Your task to perform on an android device: Open calendar and show me the second week of next month Image 0: 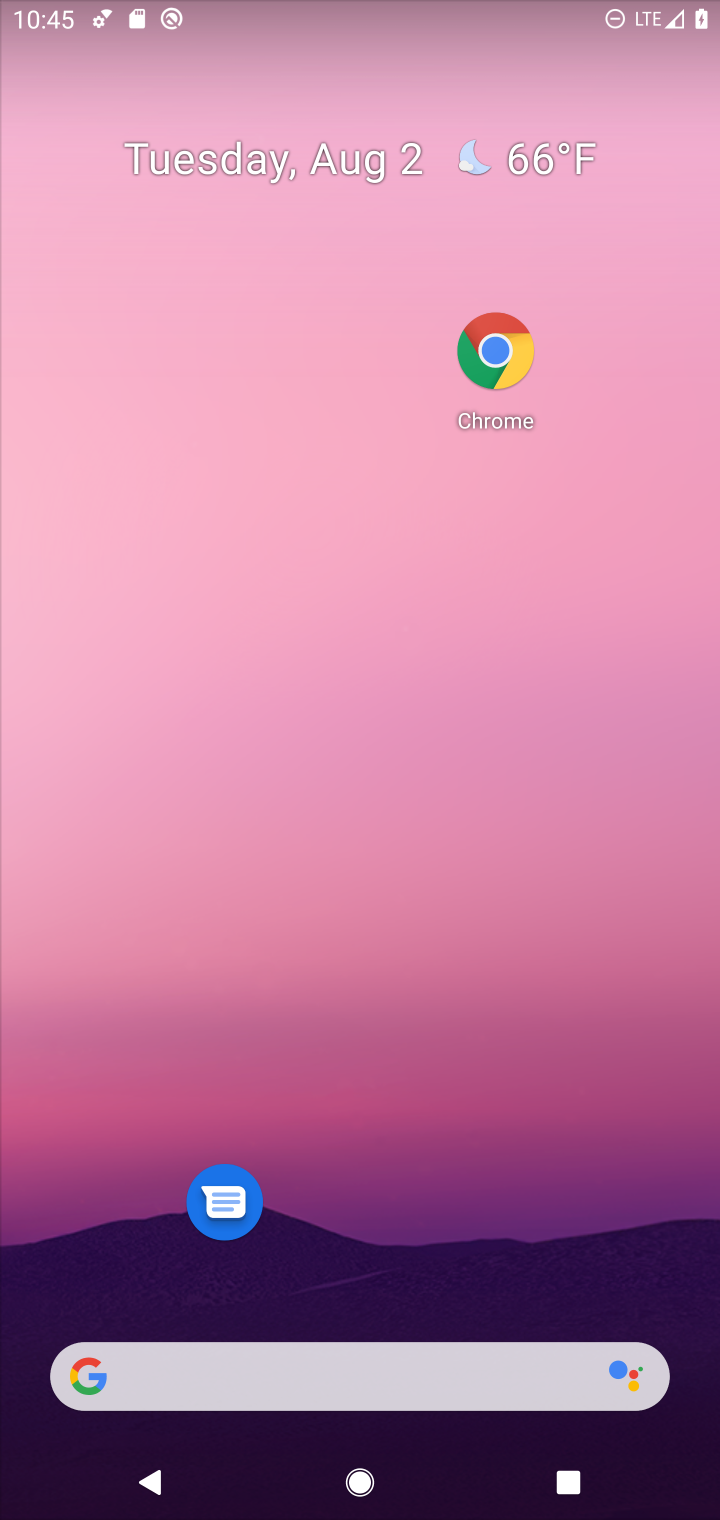
Step 0: drag from (408, 1329) to (403, 39)
Your task to perform on an android device: Open calendar and show me the second week of next month Image 1: 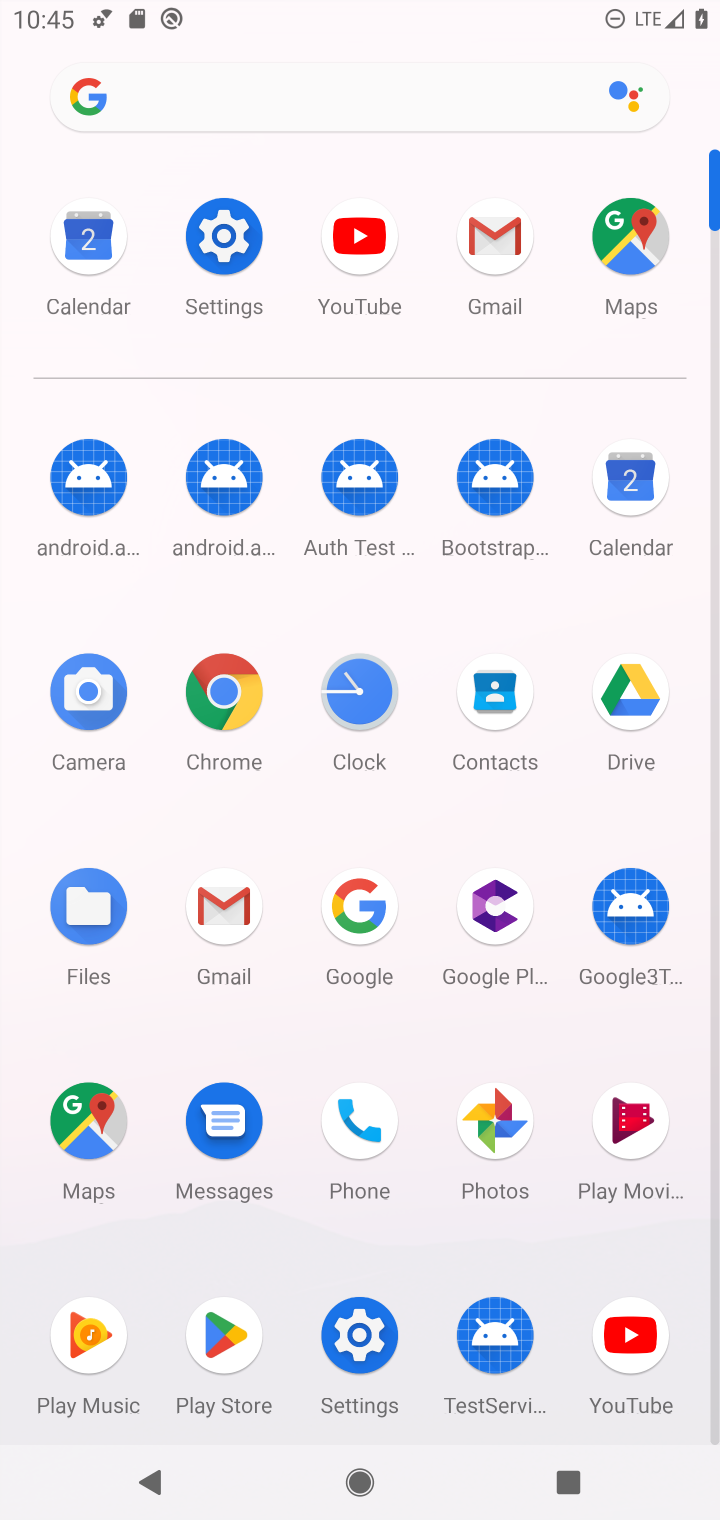
Step 1: click (632, 506)
Your task to perform on an android device: Open calendar and show me the second week of next month Image 2: 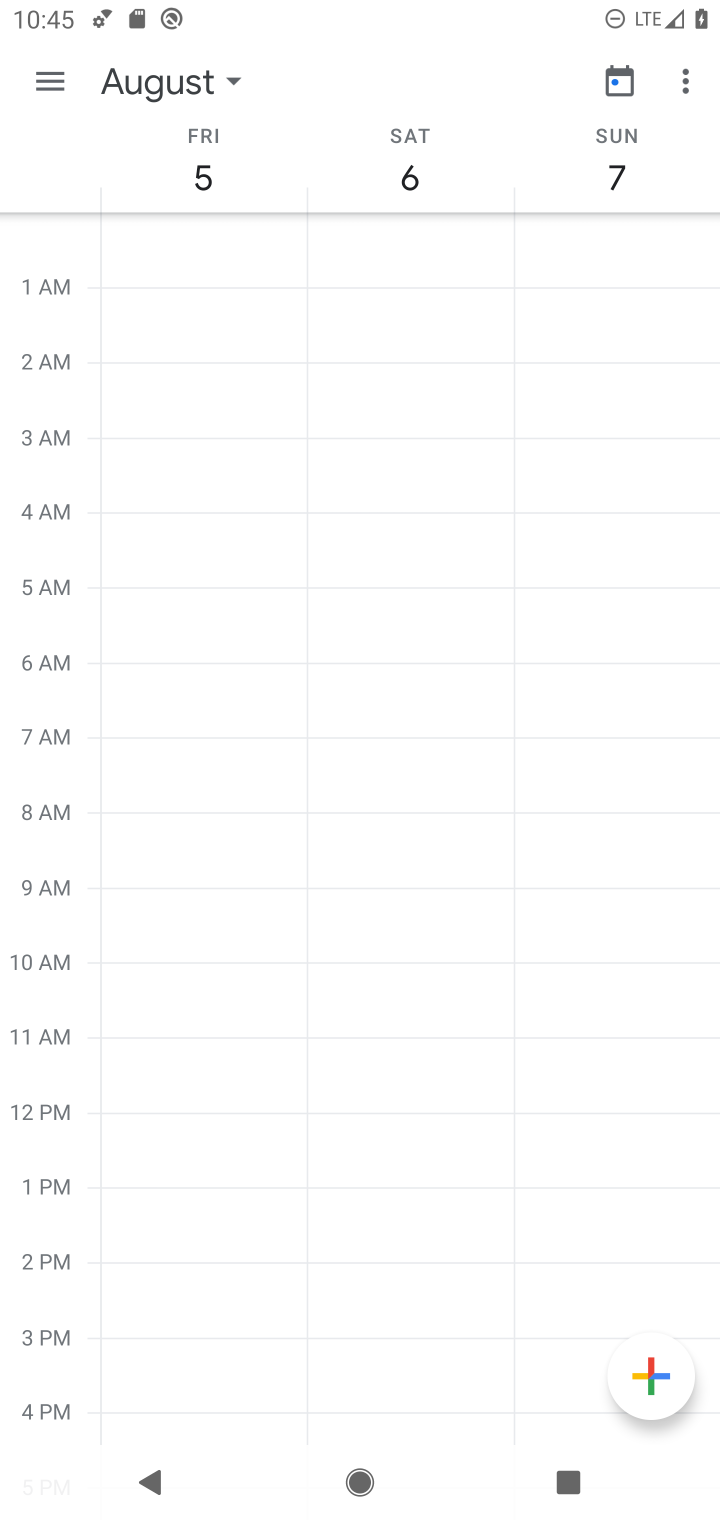
Step 2: click (233, 91)
Your task to perform on an android device: Open calendar and show me the second week of next month Image 3: 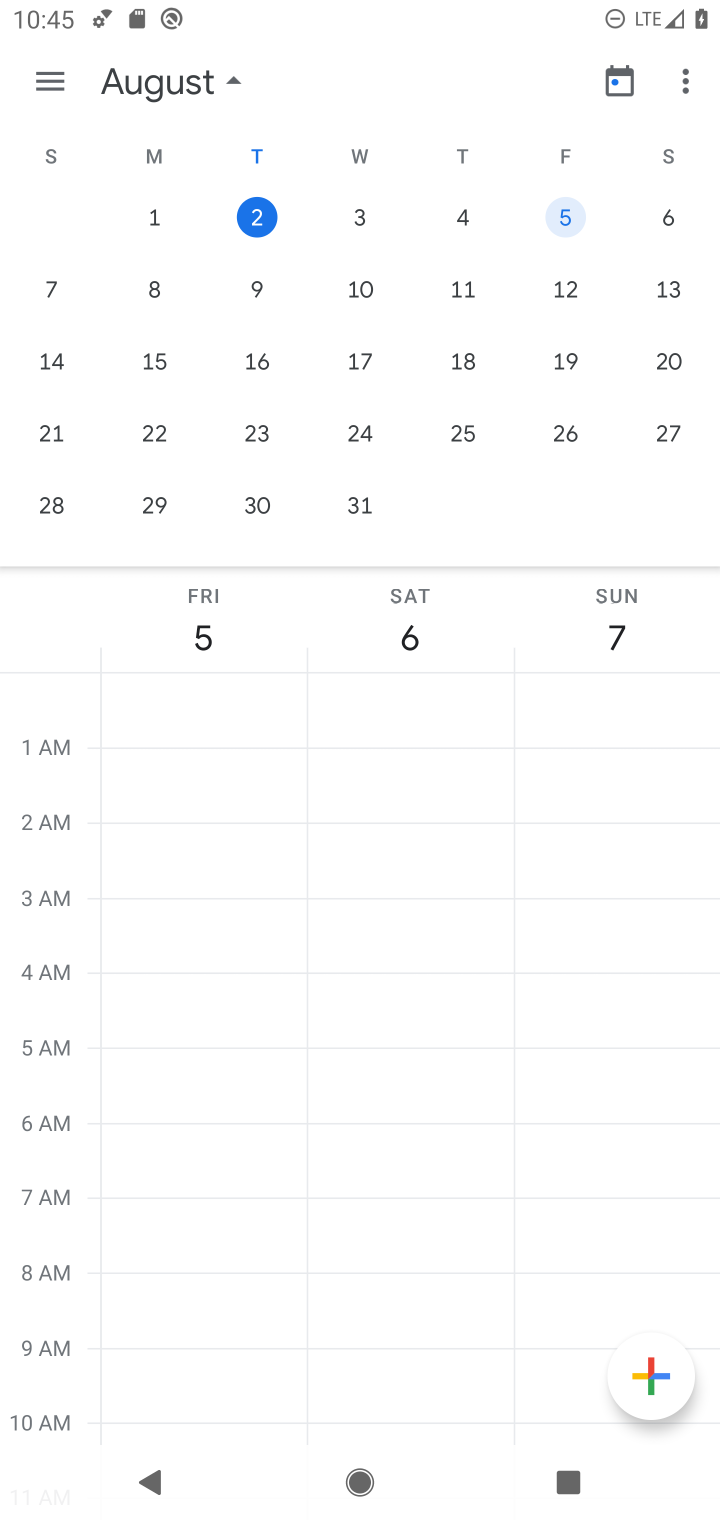
Step 3: drag from (606, 406) to (0, 106)
Your task to perform on an android device: Open calendar and show me the second week of next month Image 4: 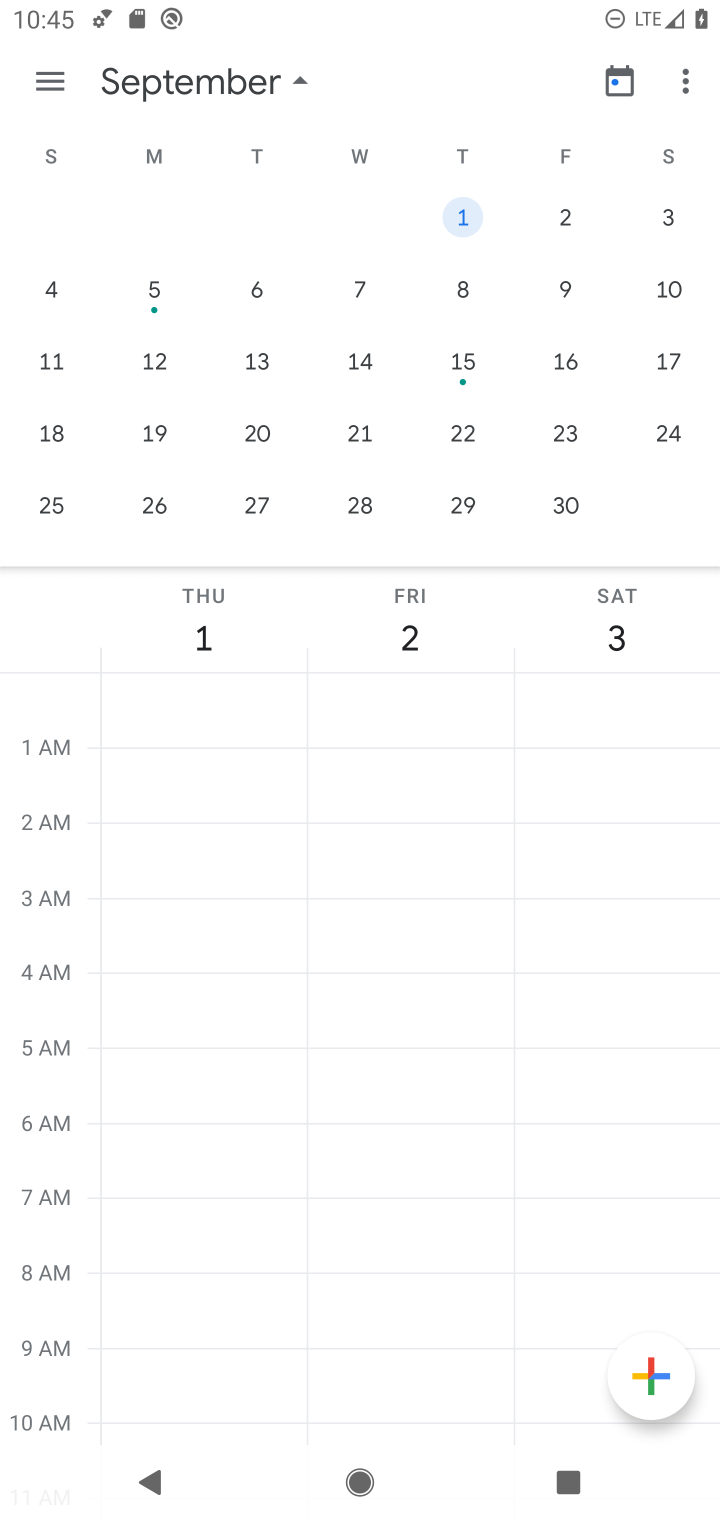
Step 4: click (50, 84)
Your task to perform on an android device: Open calendar and show me the second week of next month Image 5: 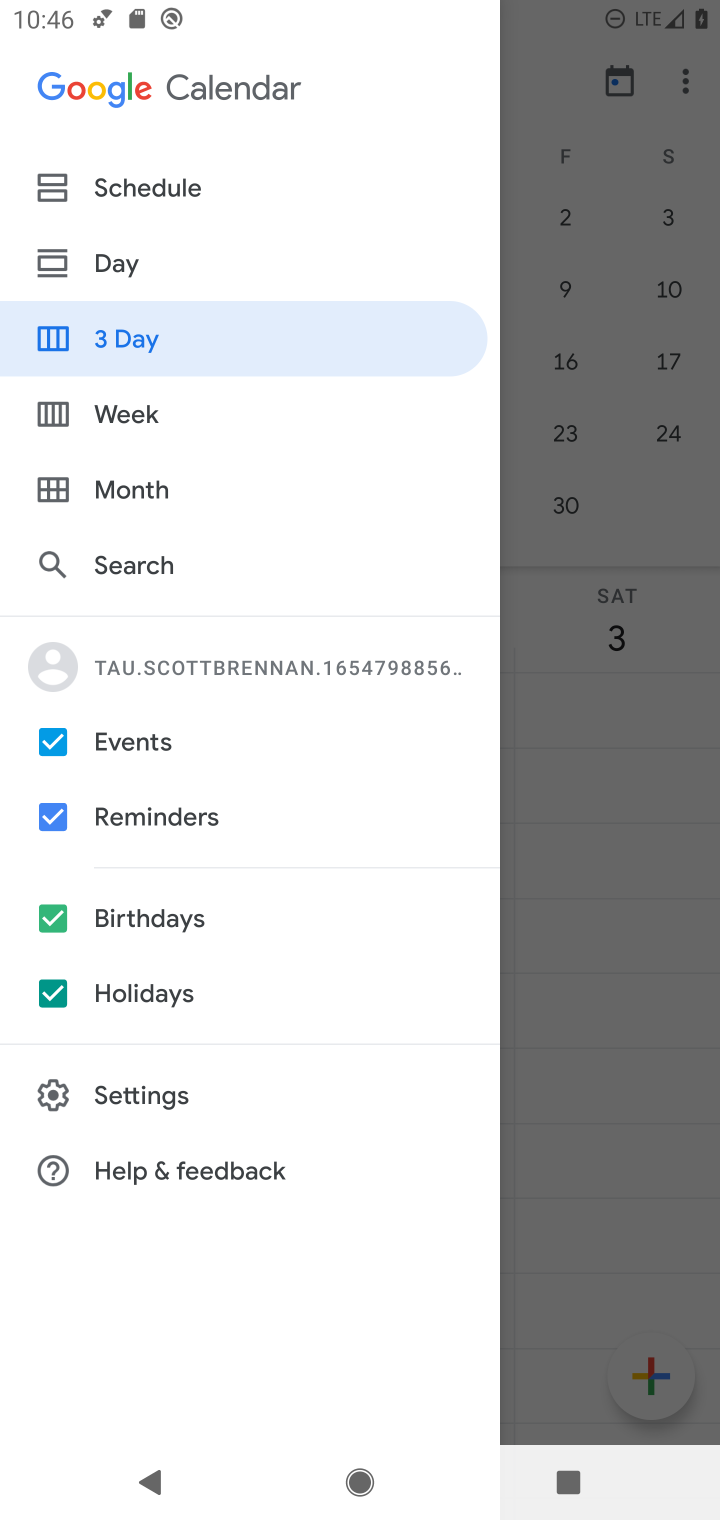
Step 5: click (92, 395)
Your task to perform on an android device: Open calendar and show me the second week of next month Image 6: 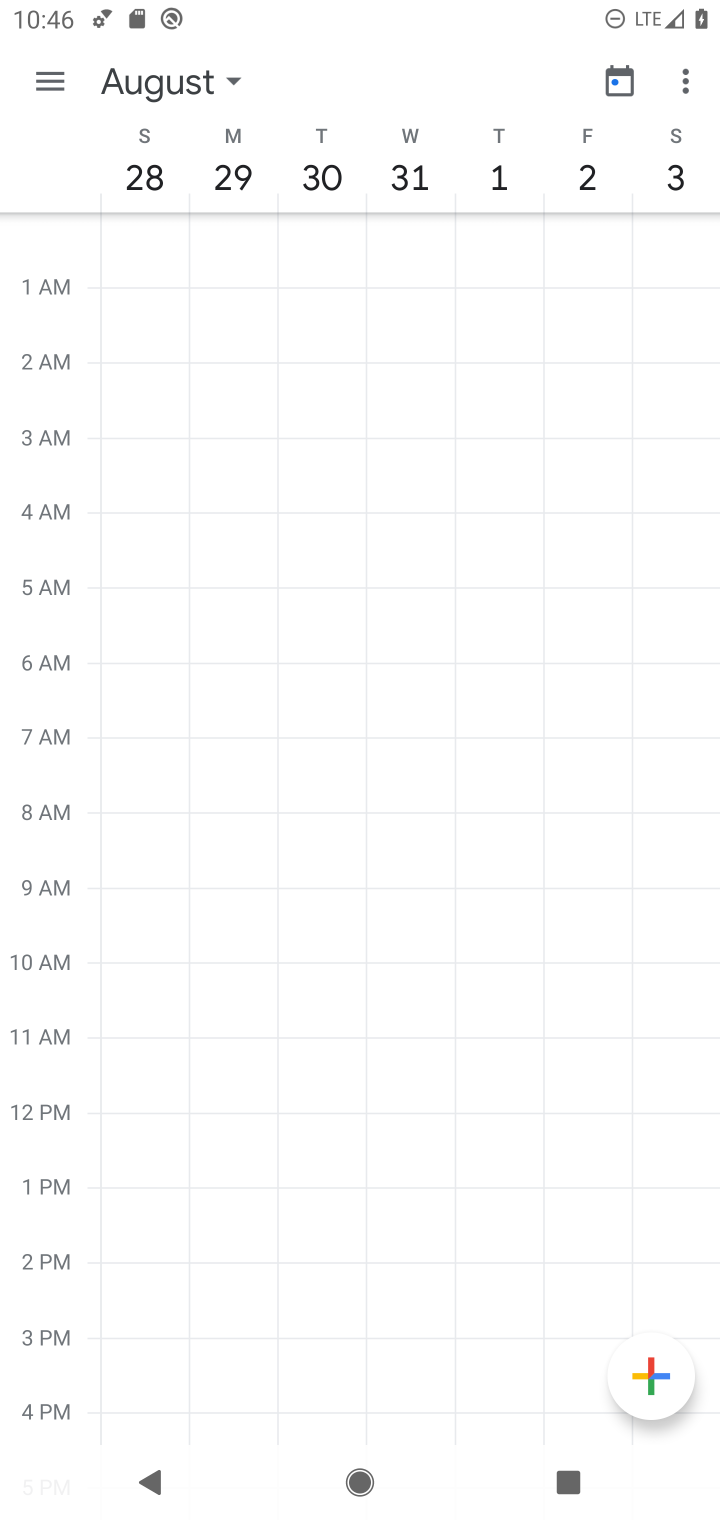
Step 6: task complete